Your task to perform on an android device: check android version Image 0: 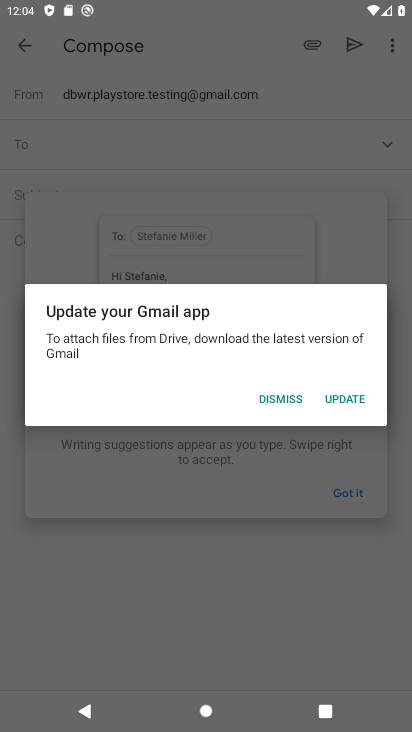
Step 0: press home button
Your task to perform on an android device: check android version Image 1: 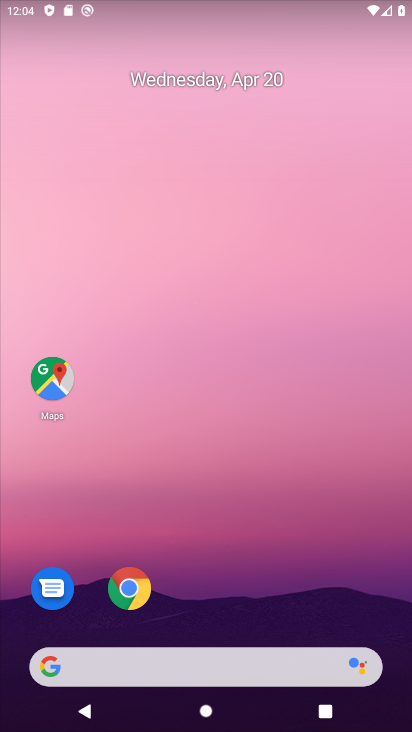
Step 1: drag from (223, 602) to (207, 54)
Your task to perform on an android device: check android version Image 2: 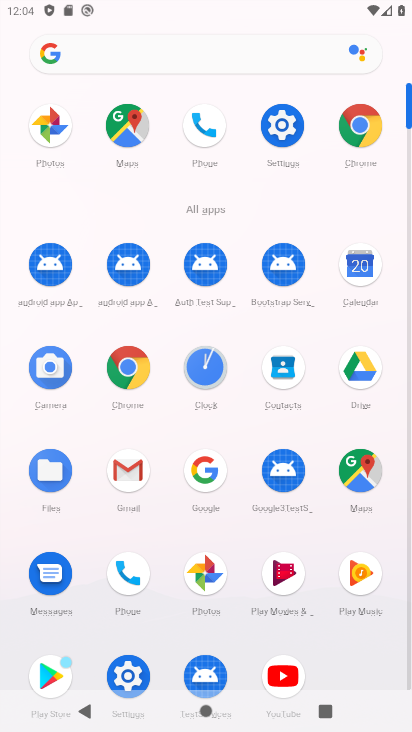
Step 2: click (142, 678)
Your task to perform on an android device: check android version Image 3: 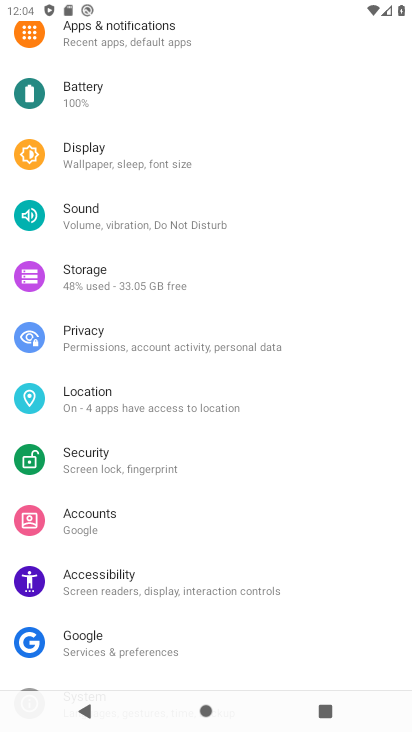
Step 3: drag from (171, 633) to (139, 165)
Your task to perform on an android device: check android version Image 4: 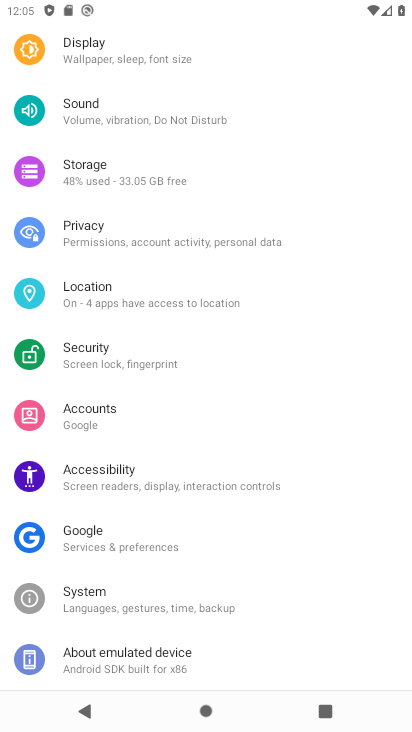
Step 4: click (142, 660)
Your task to perform on an android device: check android version Image 5: 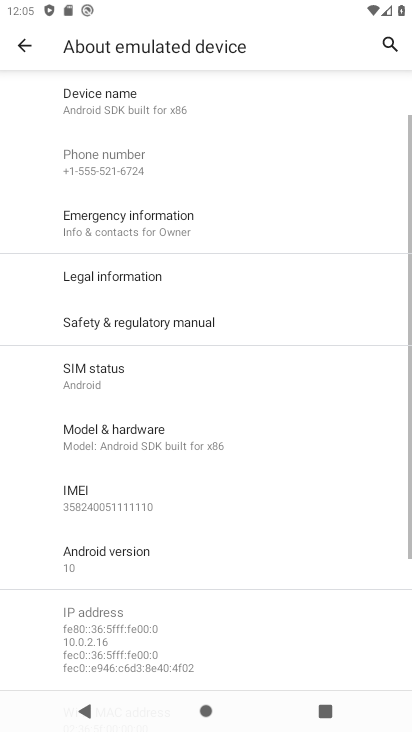
Step 5: click (121, 567)
Your task to perform on an android device: check android version Image 6: 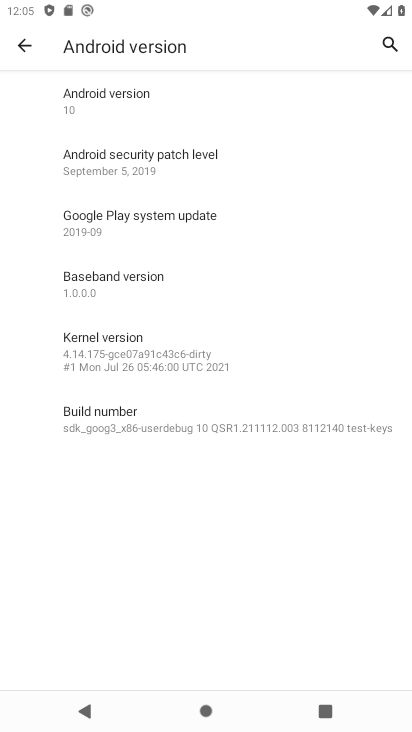
Step 6: task complete